Your task to perform on an android device: change the clock display to show seconds Image 0: 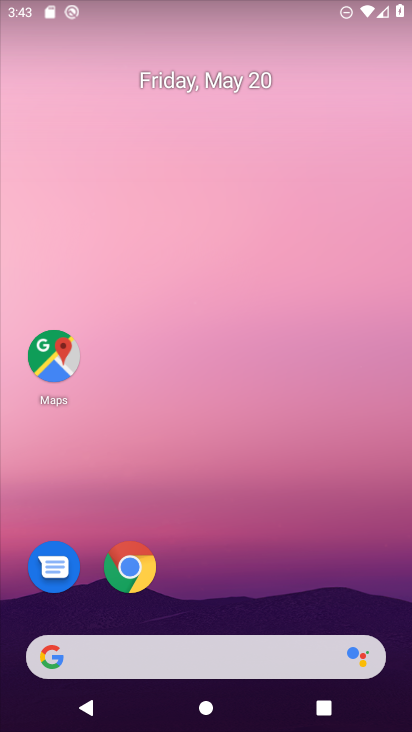
Step 0: drag from (240, 727) to (179, 248)
Your task to perform on an android device: change the clock display to show seconds Image 1: 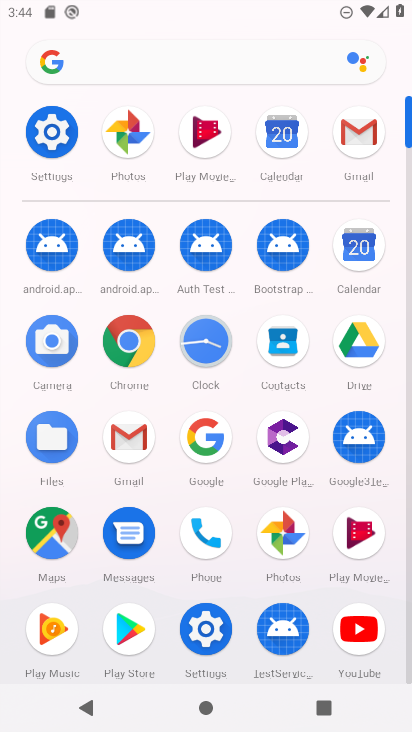
Step 1: click (208, 345)
Your task to perform on an android device: change the clock display to show seconds Image 2: 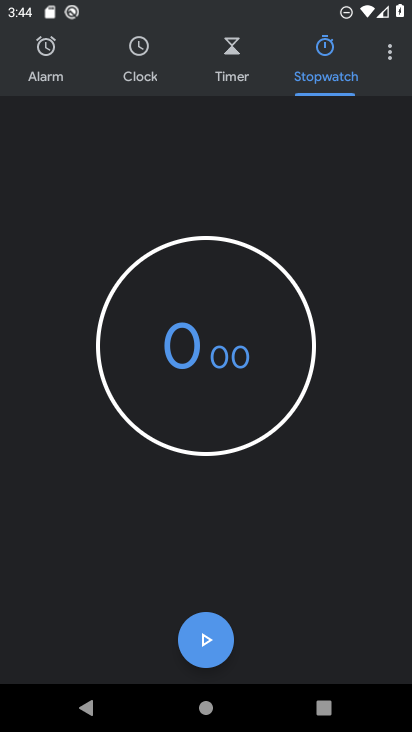
Step 2: click (392, 55)
Your task to perform on an android device: change the clock display to show seconds Image 3: 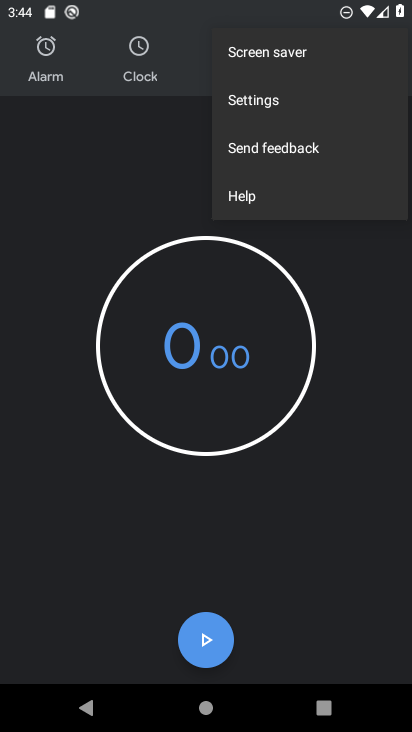
Step 3: click (261, 98)
Your task to perform on an android device: change the clock display to show seconds Image 4: 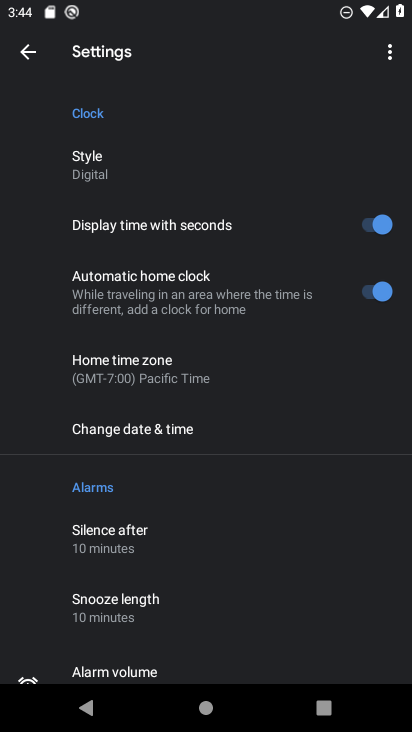
Step 4: task complete